Your task to perform on an android device: turn on improve location accuracy Image 0: 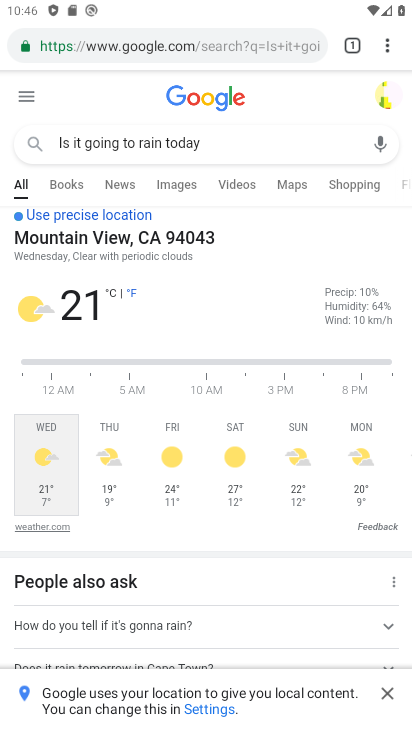
Step 0: press home button
Your task to perform on an android device: turn on improve location accuracy Image 1: 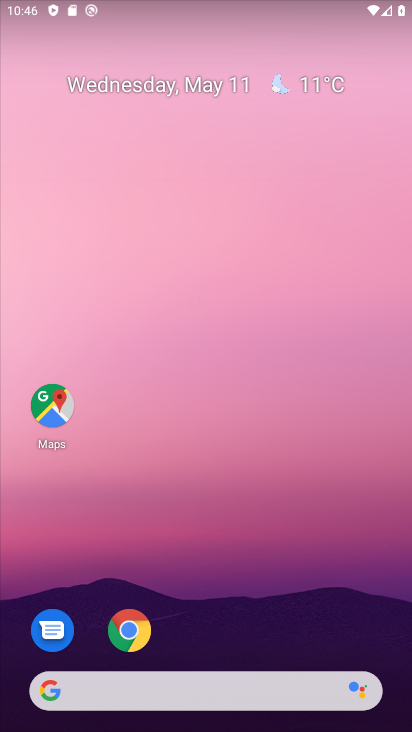
Step 1: drag from (217, 648) to (191, 317)
Your task to perform on an android device: turn on improve location accuracy Image 2: 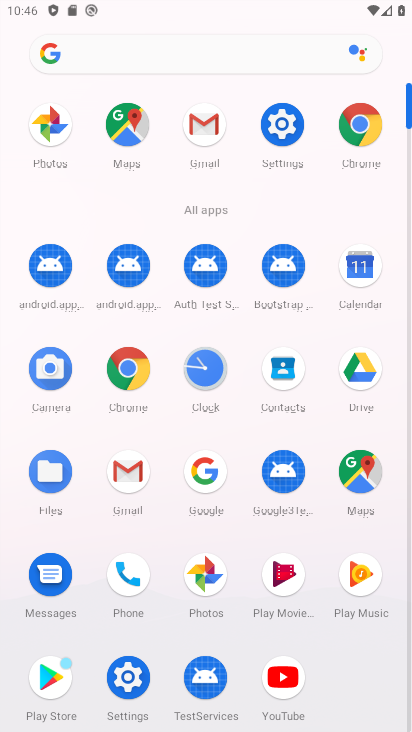
Step 2: click (293, 118)
Your task to perform on an android device: turn on improve location accuracy Image 3: 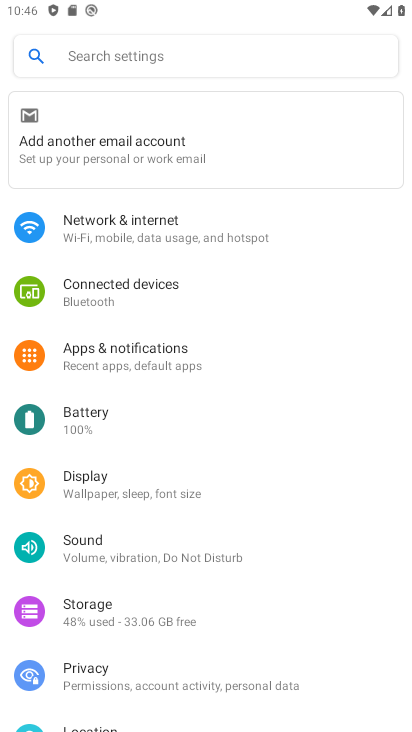
Step 3: drag from (172, 568) to (221, 230)
Your task to perform on an android device: turn on improve location accuracy Image 4: 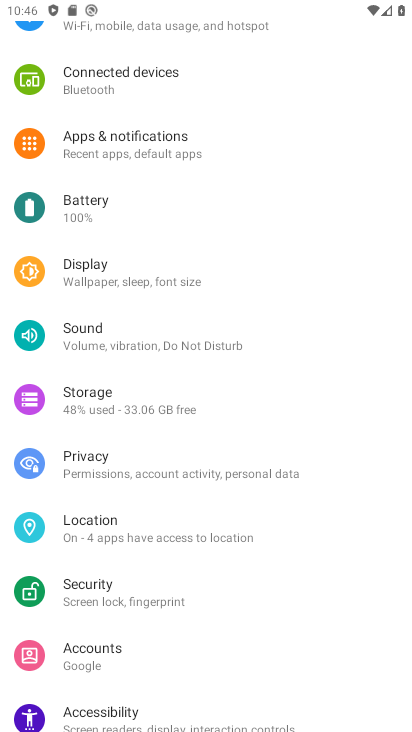
Step 4: click (132, 518)
Your task to perform on an android device: turn on improve location accuracy Image 5: 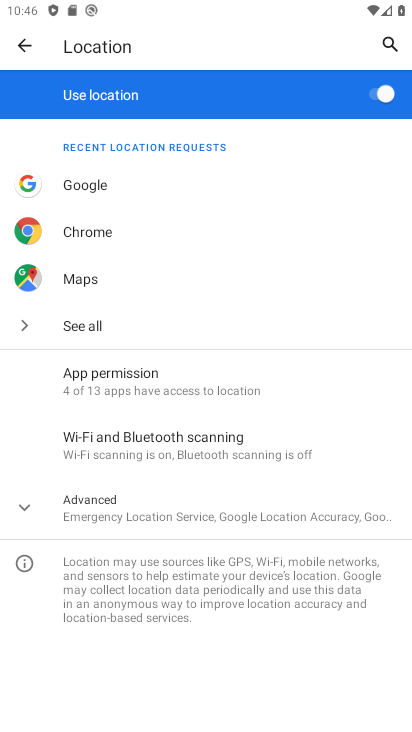
Step 5: click (118, 495)
Your task to perform on an android device: turn on improve location accuracy Image 6: 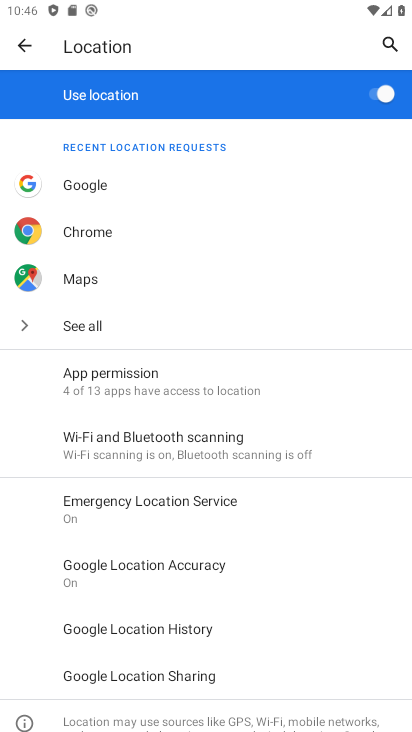
Step 6: click (170, 572)
Your task to perform on an android device: turn on improve location accuracy Image 7: 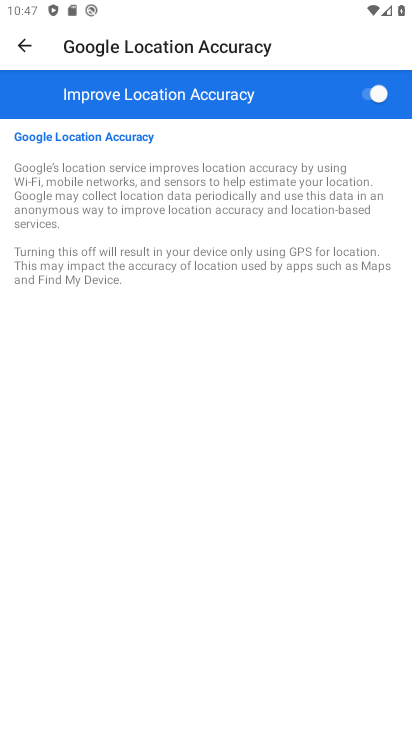
Step 7: task complete